Your task to perform on an android device: change notifications settings Image 0: 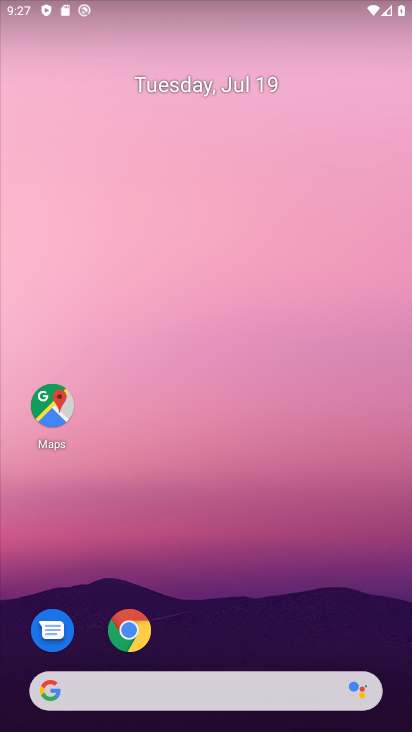
Step 0: drag from (199, 627) to (197, 76)
Your task to perform on an android device: change notifications settings Image 1: 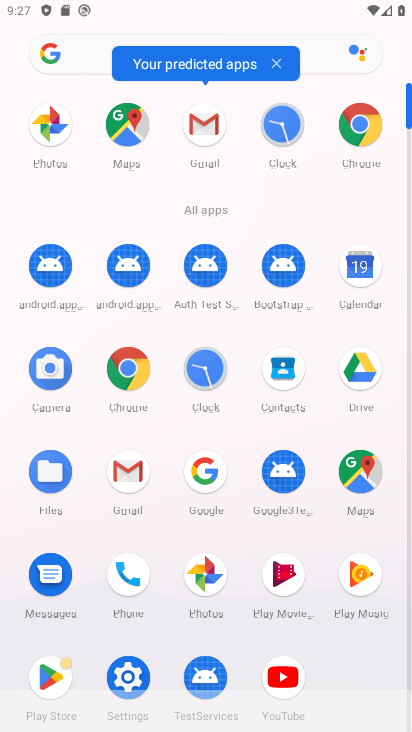
Step 1: click (139, 666)
Your task to perform on an android device: change notifications settings Image 2: 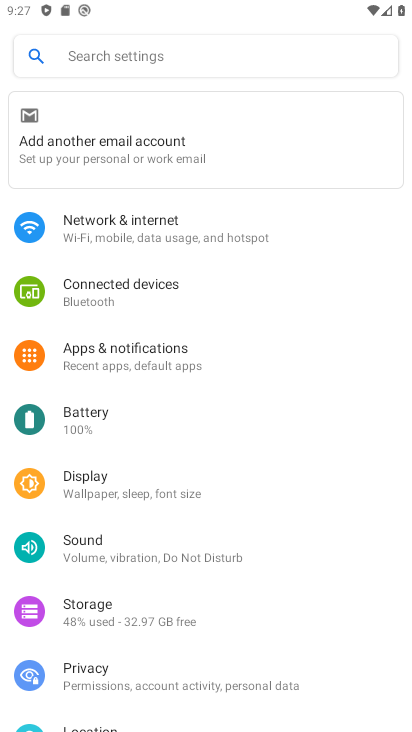
Step 2: click (159, 350)
Your task to perform on an android device: change notifications settings Image 3: 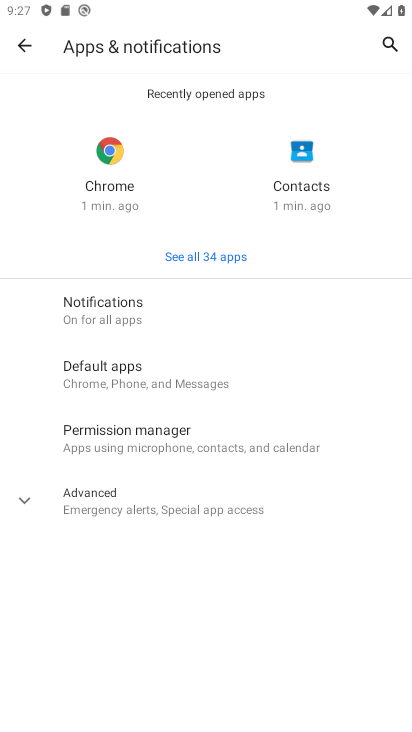
Step 3: click (149, 319)
Your task to perform on an android device: change notifications settings Image 4: 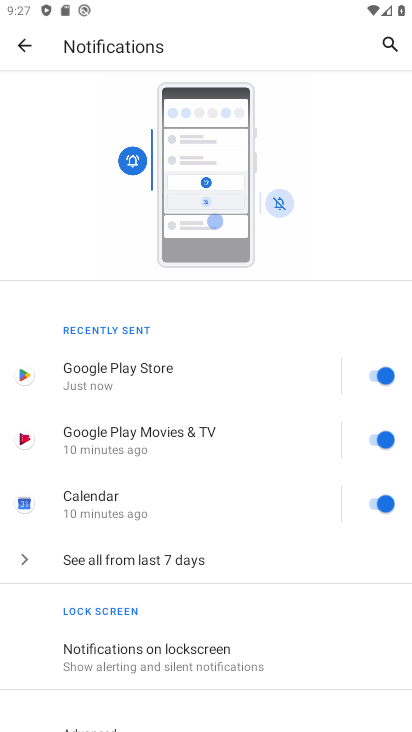
Step 4: drag from (275, 652) to (269, 217)
Your task to perform on an android device: change notifications settings Image 5: 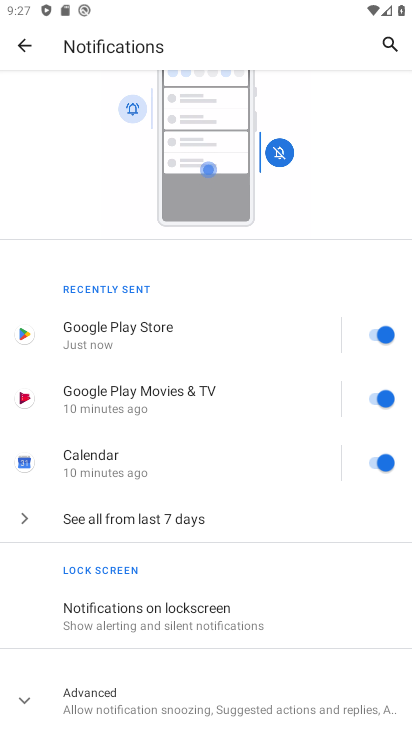
Step 5: click (194, 719)
Your task to perform on an android device: change notifications settings Image 6: 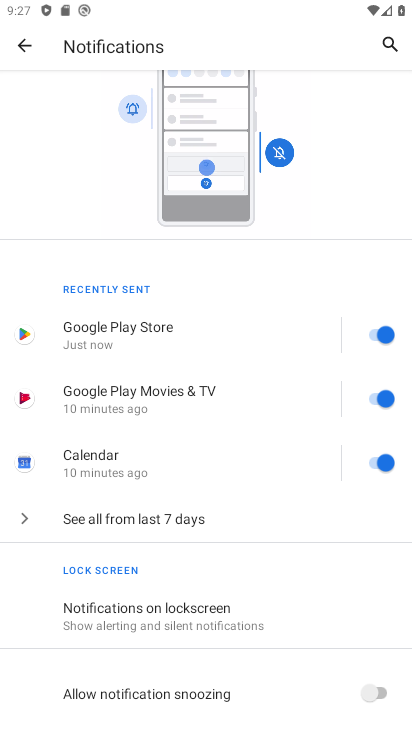
Step 6: drag from (223, 668) to (216, 231)
Your task to perform on an android device: change notifications settings Image 7: 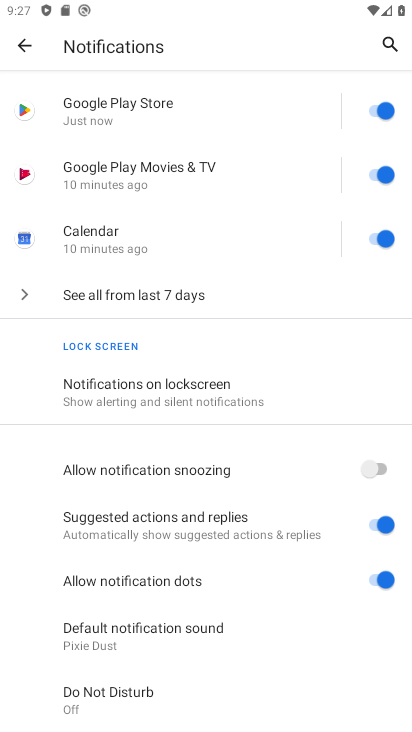
Step 7: click (376, 475)
Your task to perform on an android device: change notifications settings Image 8: 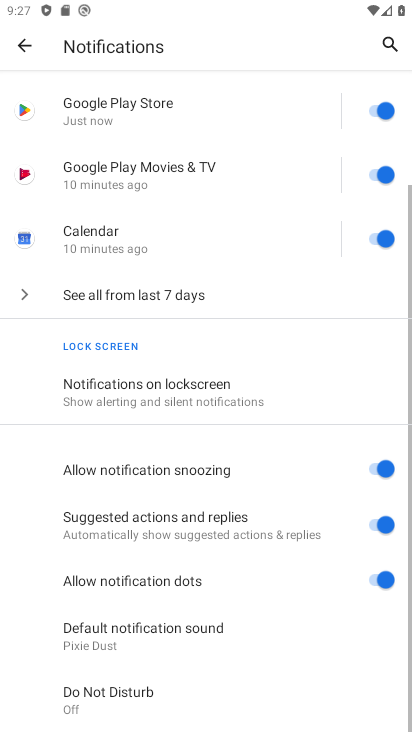
Step 8: click (378, 519)
Your task to perform on an android device: change notifications settings Image 9: 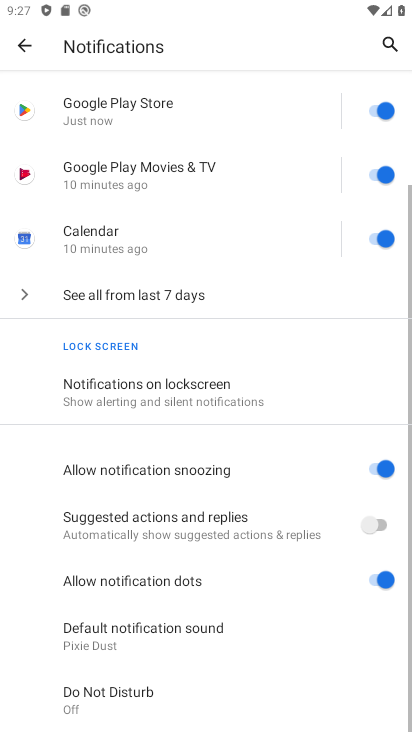
Step 9: click (385, 580)
Your task to perform on an android device: change notifications settings Image 10: 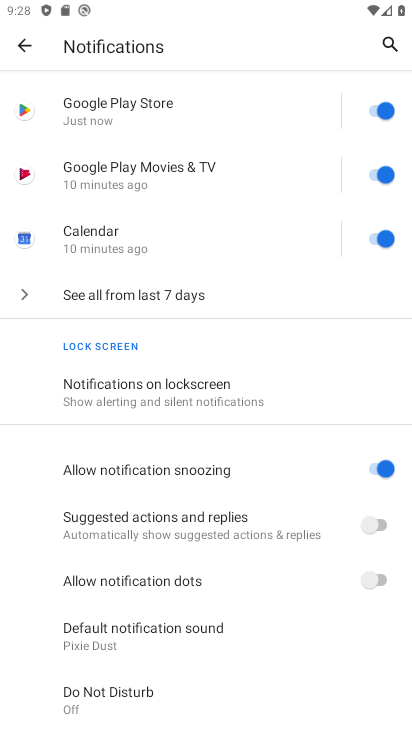
Step 10: task complete